Your task to perform on an android device: Open Chrome and go to the settings page Image 0: 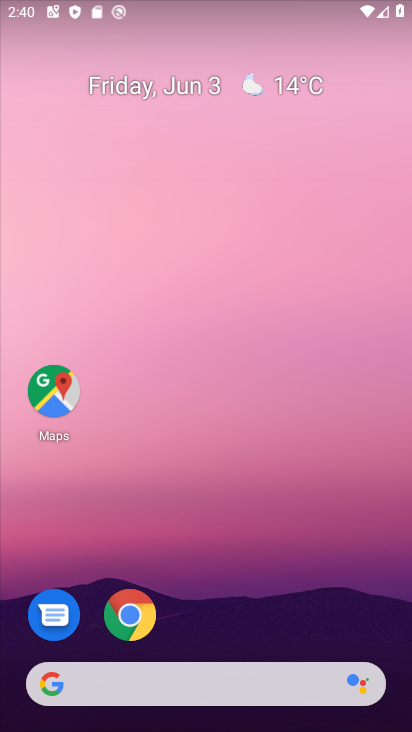
Step 0: press home button
Your task to perform on an android device: Open Chrome and go to the settings page Image 1: 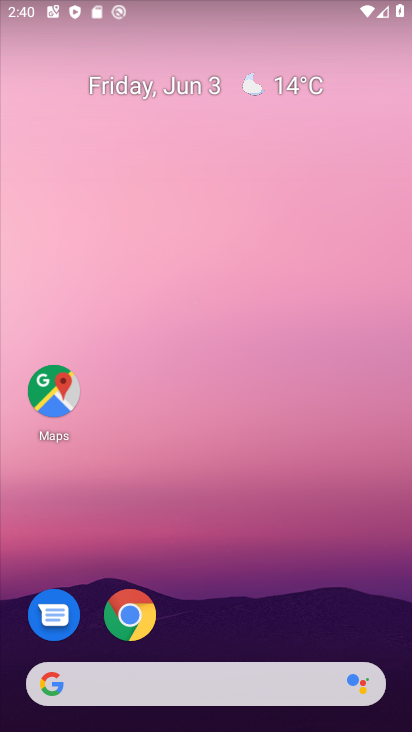
Step 1: click (132, 617)
Your task to perform on an android device: Open Chrome and go to the settings page Image 2: 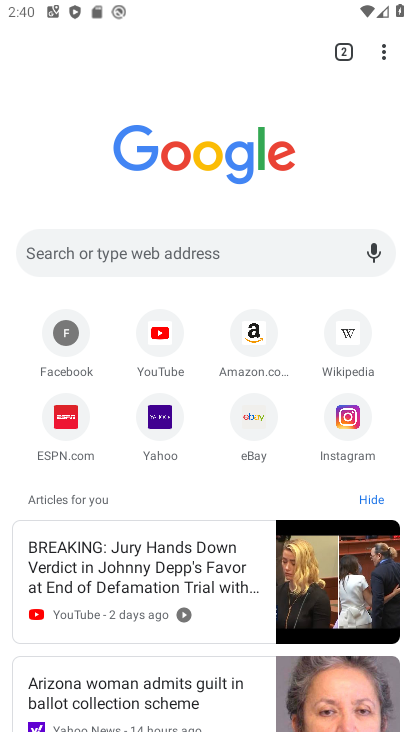
Step 2: task complete